Your task to perform on an android device: manage bookmarks in the chrome app Image 0: 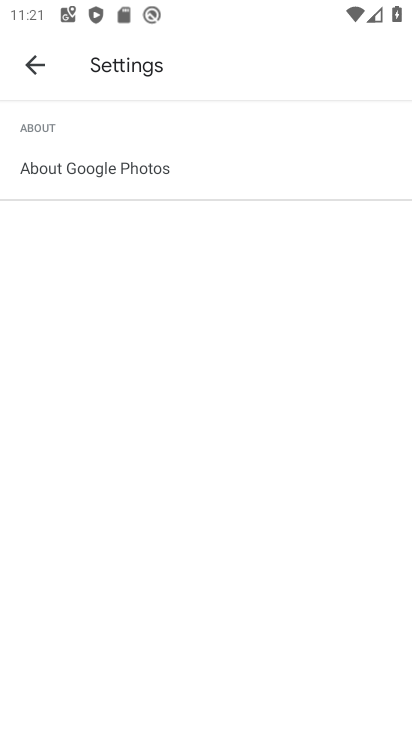
Step 0: press home button
Your task to perform on an android device: manage bookmarks in the chrome app Image 1: 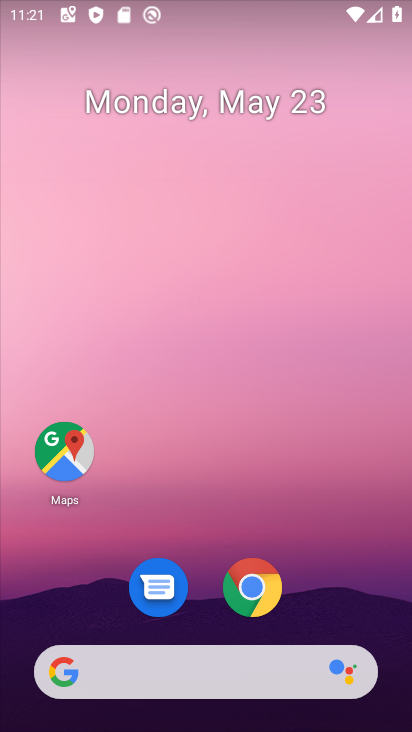
Step 1: click (268, 592)
Your task to perform on an android device: manage bookmarks in the chrome app Image 2: 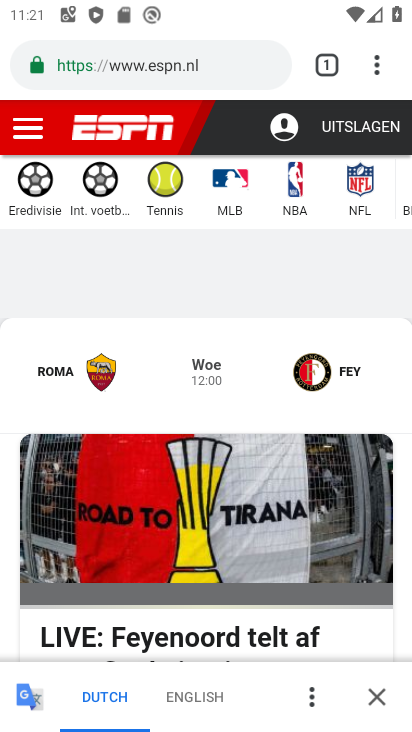
Step 2: click (387, 66)
Your task to perform on an android device: manage bookmarks in the chrome app Image 3: 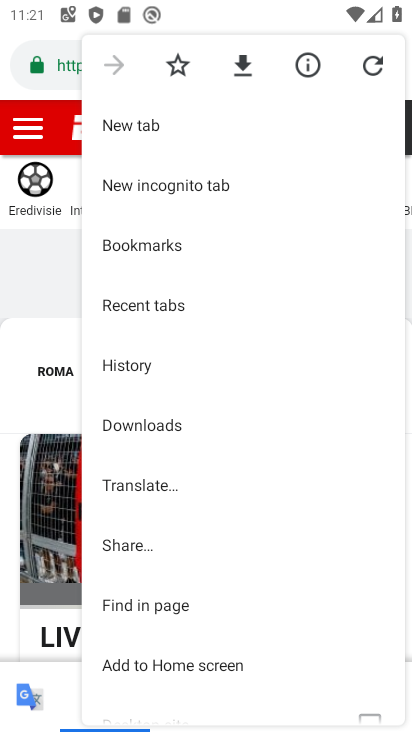
Step 3: click (261, 253)
Your task to perform on an android device: manage bookmarks in the chrome app Image 4: 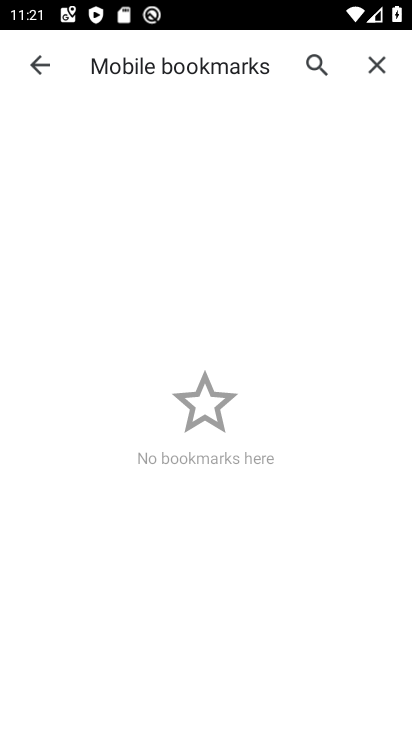
Step 4: task complete